Your task to perform on an android device: Do I have any events tomorrow? Image 0: 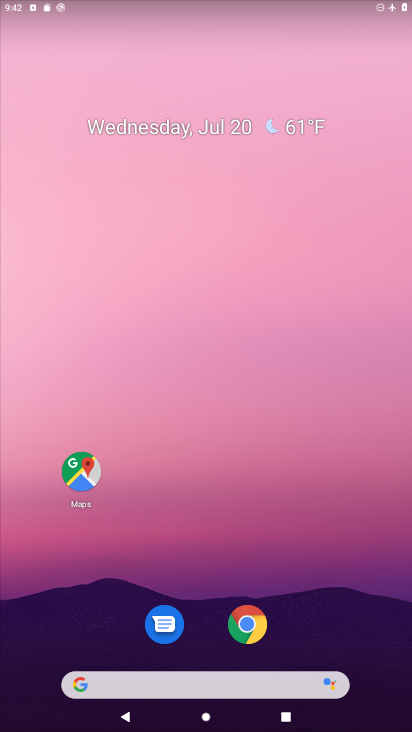
Step 0: drag from (207, 568) to (209, 159)
Your task to perform on an android device: Do I have any events tomorrow? Image 1: 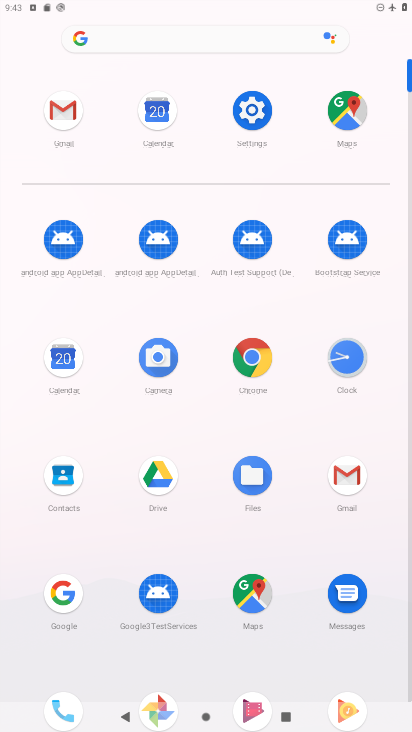
Step 1: click (181, 134)
Your task to perform on an android device: Do I have any events tomorrow? Image 2: 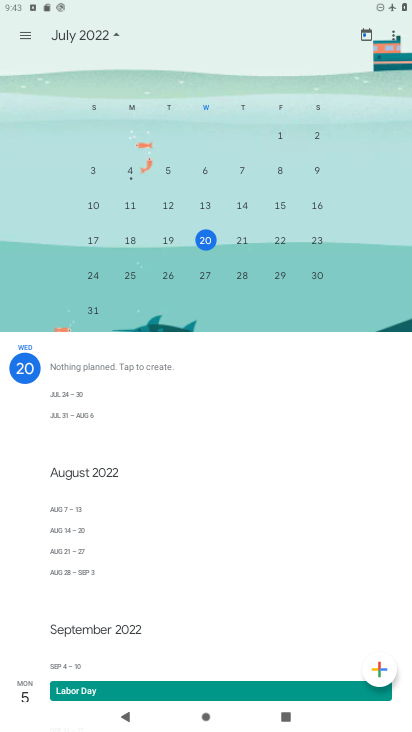
Step 2: click (246, 250)
Your task to perform on an android device: Do I have any events tomorrow? Image 3: 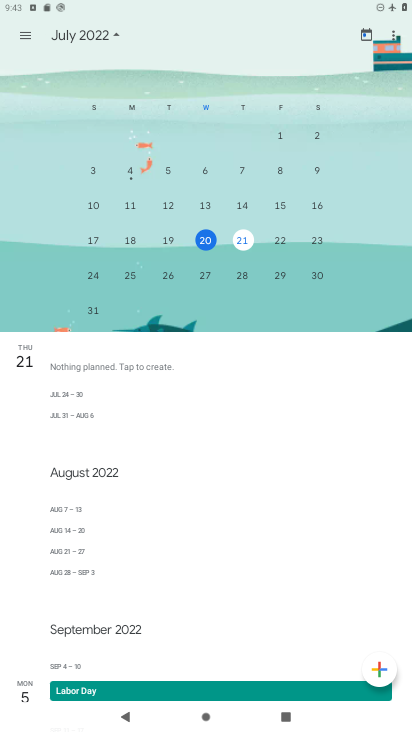
Step 3: task complete